Your task to perform on an android device: open chrome privacy settings Image 0: 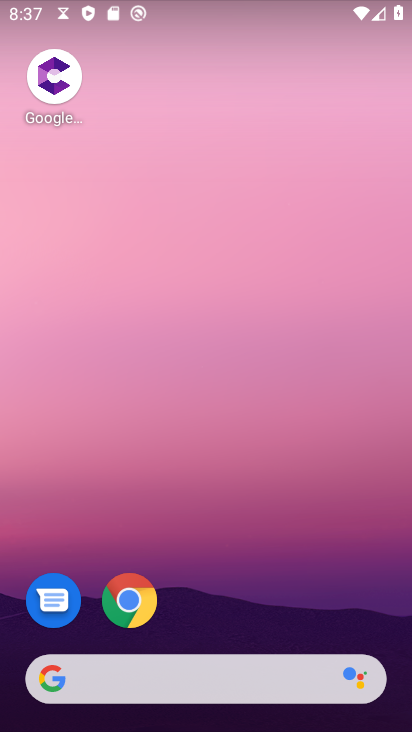
Step 0: click (131, 601)
Your task to perform on an android device: open chrome privacy settings Image 1: 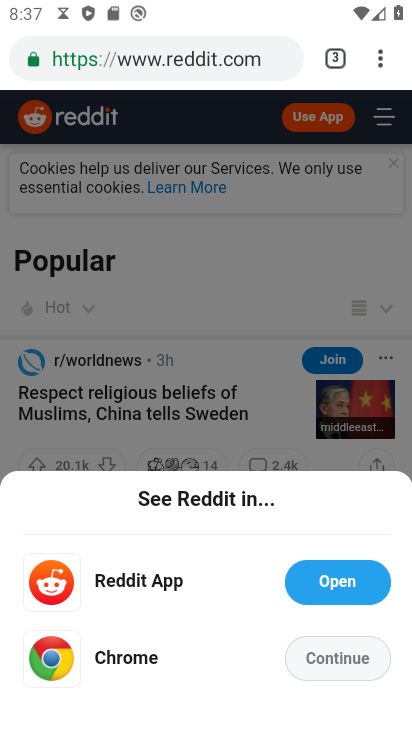
Step 1: click (380, 60)
Your task to perform on an android device: open chrome privacy settings Image 2: 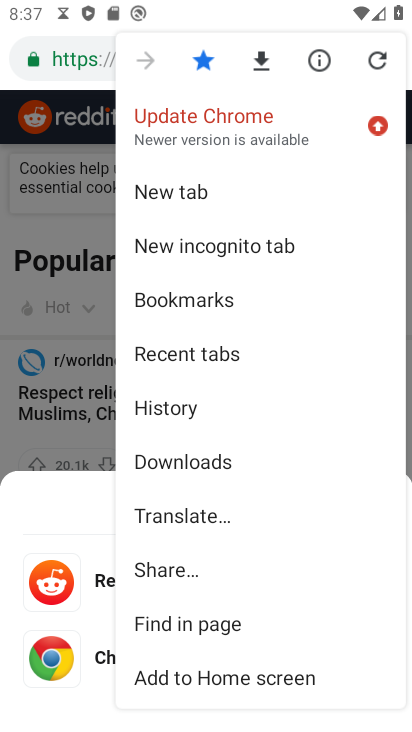
Step 2: drag from (210, 645) to (216, 208)
Your task to perform on an android device: open chrome privacy settings Image 3: 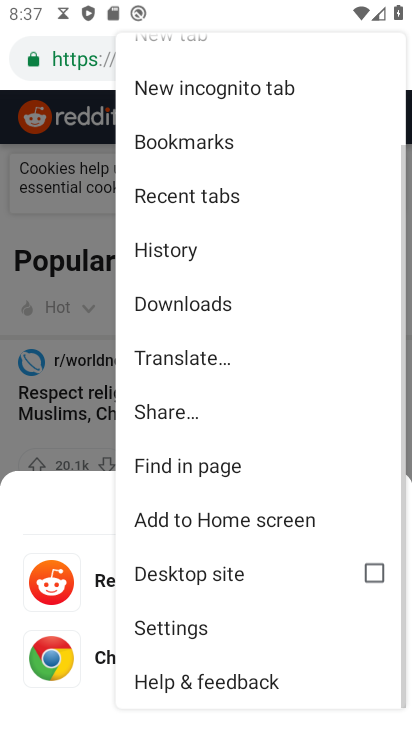
Step 3: click (166, 625)
Your task to perform on an android device: open chrome privacy settings Image 4: 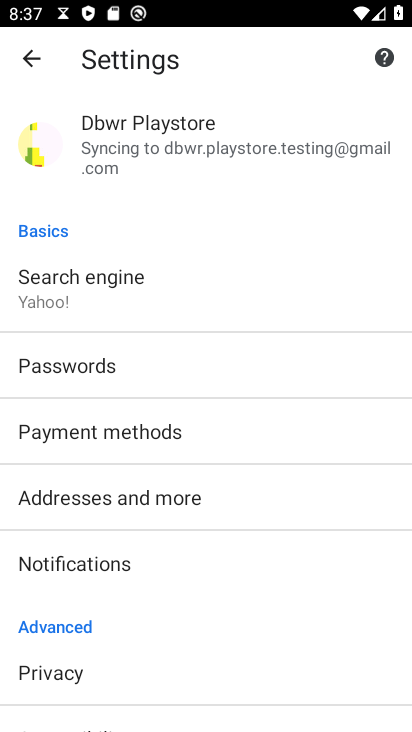
Step 4: click (51, 670)
Your task to perform on an android device: open chrome privacy settings Image 5: 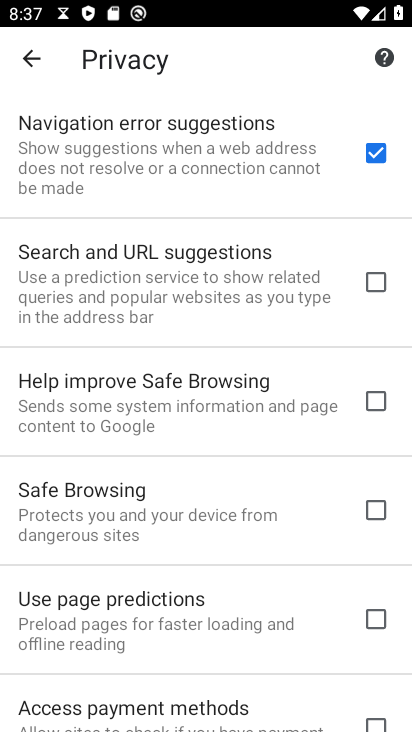
Step 5: task complete